Your task to perform on an android device: empty trash in google photos Image 0: 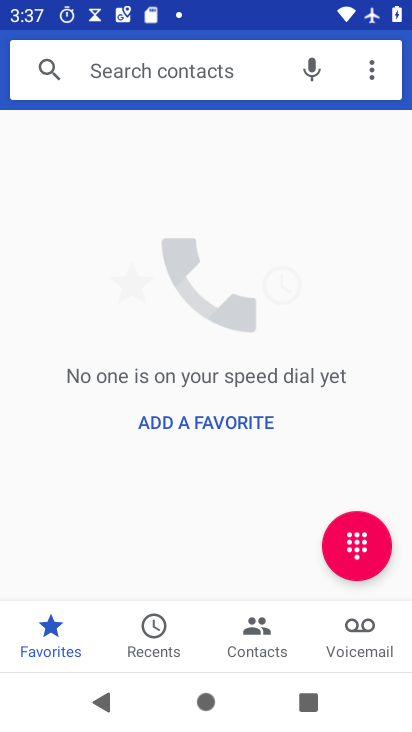
Step 0: press home button
Your task to perform on an android device: empty trash in google photos Image 1: 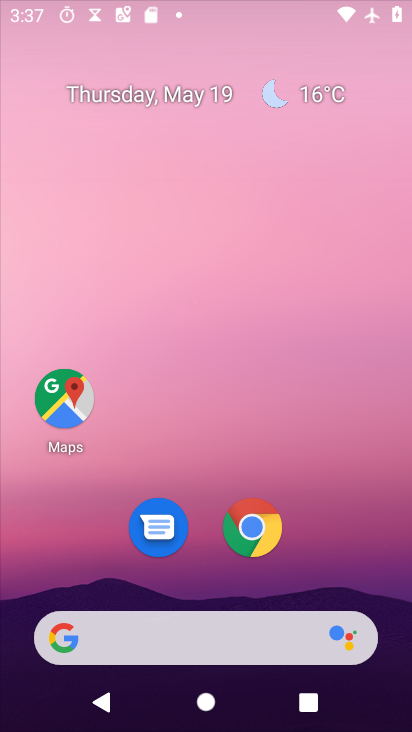
Step 1: drag from (360, 563) to (231, 36)
Your task to perform on an android device: empty trash in google photos Image 2: 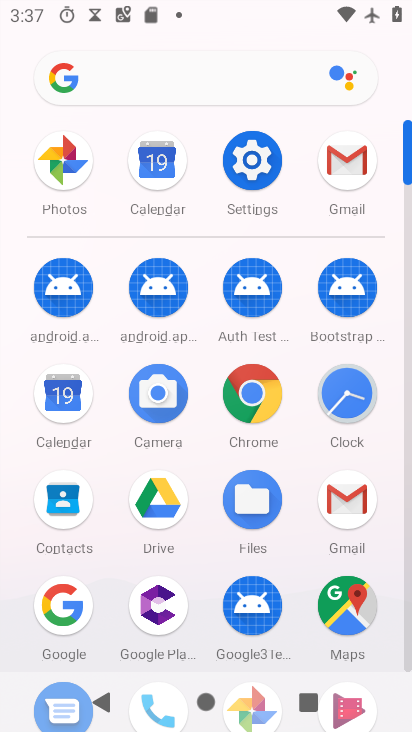
Step 2: drag from (301, 653) to (263, 406)
Your task to perform on an android device: empty trash in google photos Image 3: 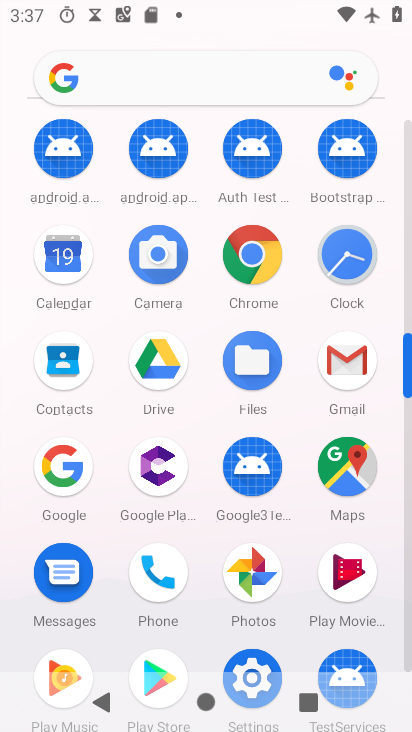
Step 3: click (258, 566)
Your task to perform on an android device: empty trash in google photos Image 4: 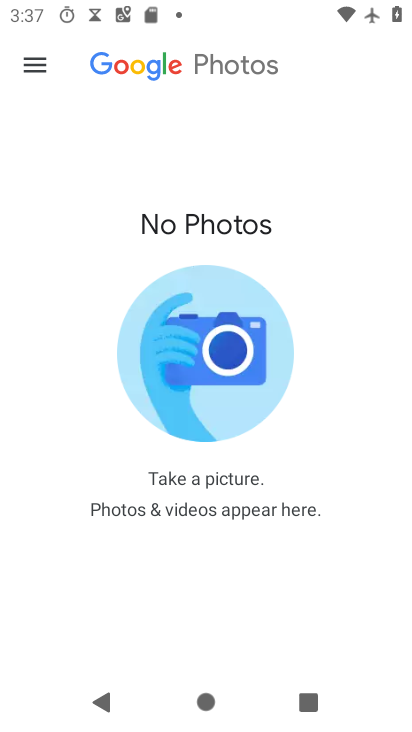
Step 4: click (22, 58)
Your task to perform on an android device: empty trash in google photos Image 5: 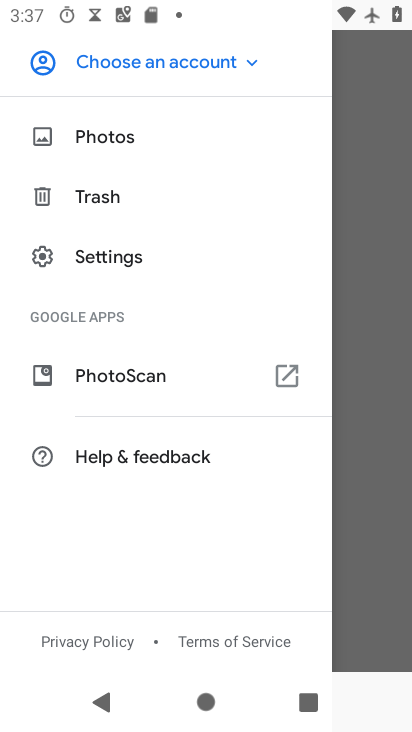
Step 5: click (122, 194)
Your task to perform on an android device: empty trash in google photos Image 6: 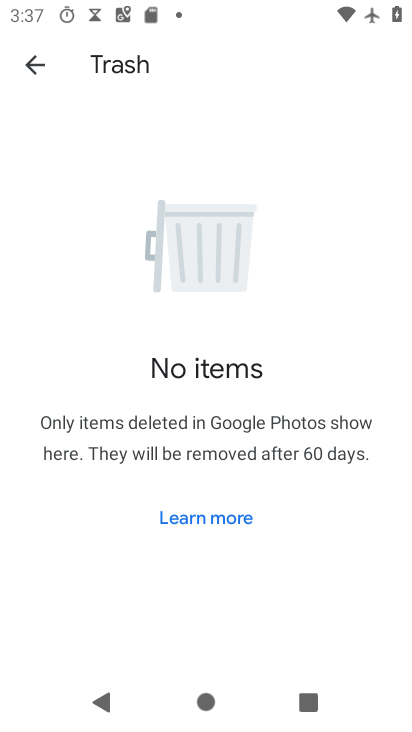
Step 6: task complete